Your task to perform on an android device: delete a single message in the gmail app Image 0: 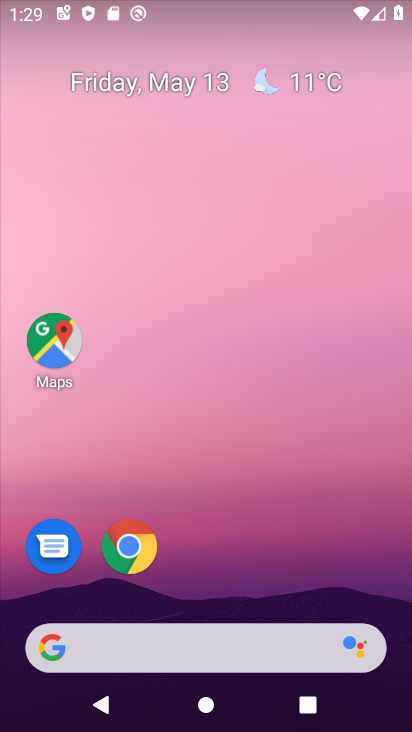
Step 0: drag from (254, 662) to (254, 211)
Your task to perform on an android device: delete a single message in the gmail app Image 1: 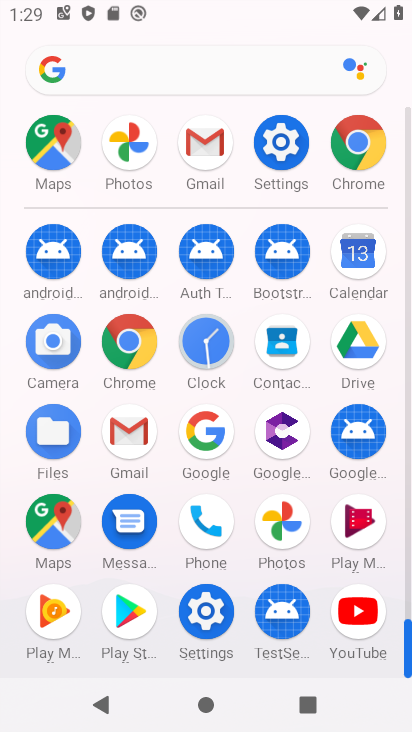
Step 1: click (142, 423)
Your task to perform on an android device: delete a single message in the gmail app Image 2: 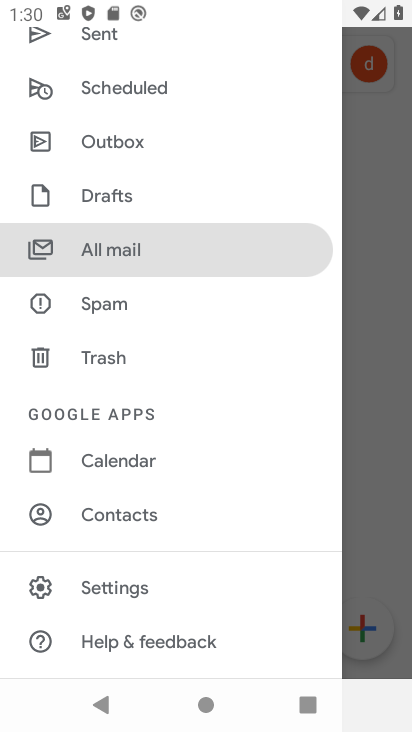
Step 2: click (154, 248)
Your task to perform on an android device: delete a single message in the gmail app Image 3: 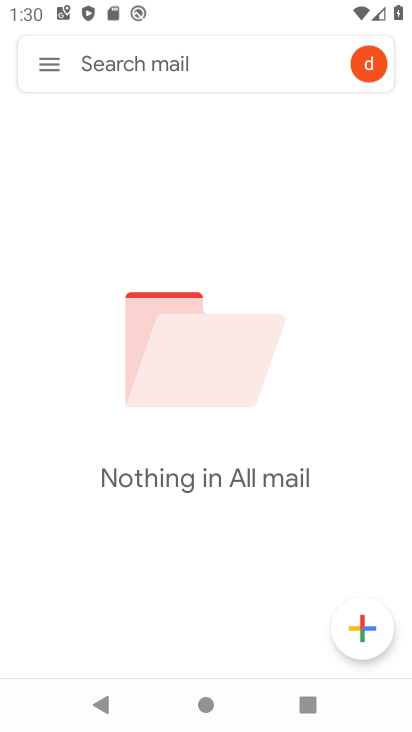
Step 3: click (56, 70)
Your task to perform on an android device: delete a single message in the gmail app Image 4: 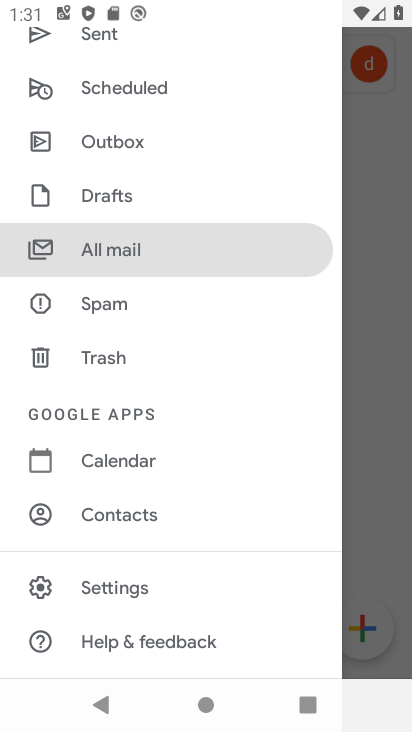
Step 4: task complete